Your task to perform on an android device: Open Chrome and go to settings Image 0: 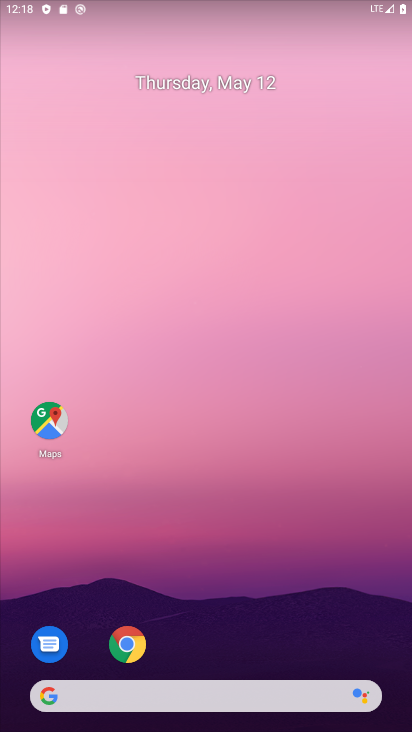
Step 0: click (135, 645)
Your task to perform on an android device: Open Chrome and go to settings Image 1: 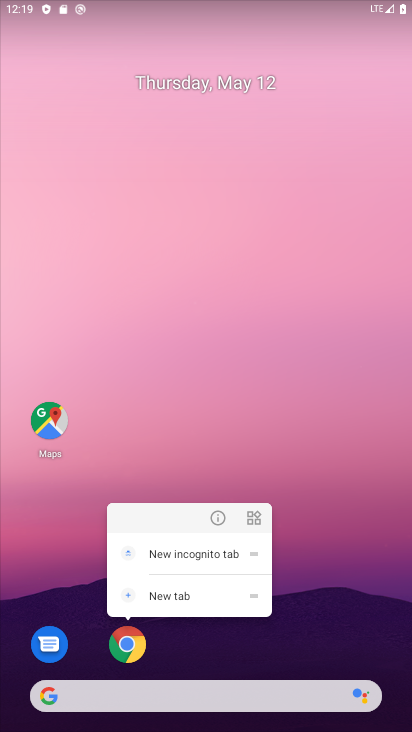
Step 1: click (136, 648)
Your task to perform on an android device: Open Chrome and go to settings Image 2: 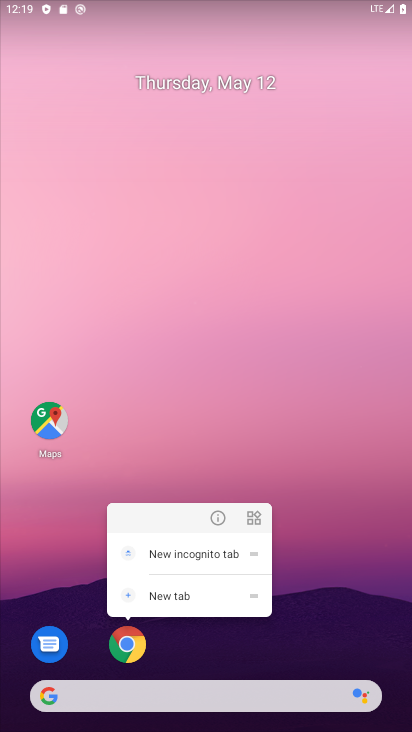
Step 2: click (137, 647)
Your task to perform on an android device: Open Chrome and go to settings Image 3: 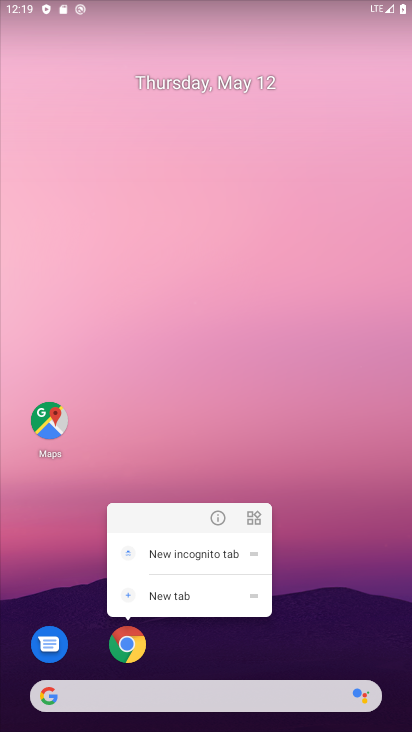
Step 3: click (136, 648)
Your task to perform on an android device: Open Chrome and go to settings Image 4: 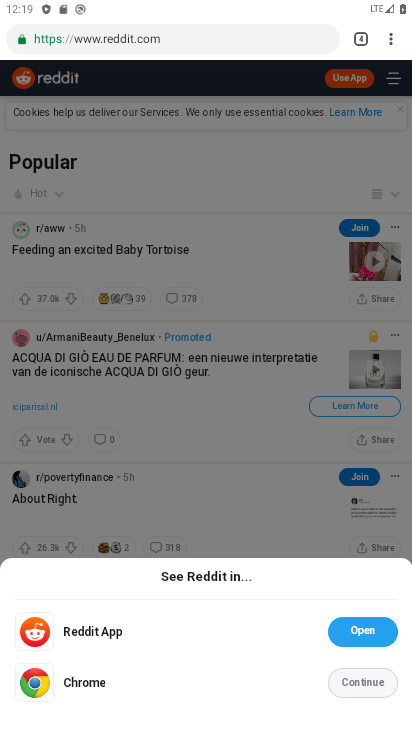
Step 4: click (393, 45)
Your task to perform on an android device: Open Chrome and go to settings Image 5: 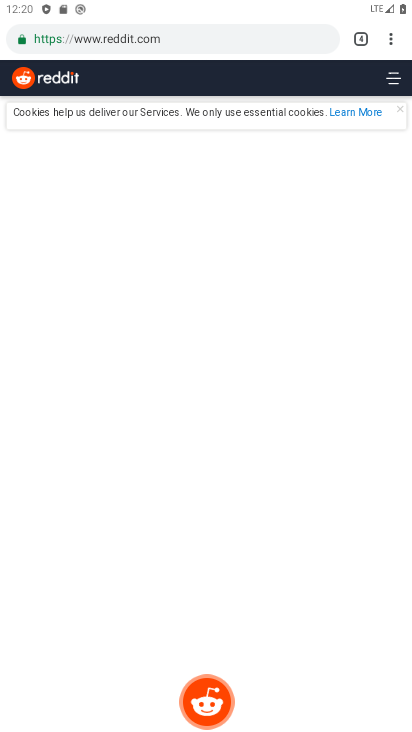
Step 5: click (386, 39)
Your task to perform on an android device: Open Chrome and go to settings Image 6: 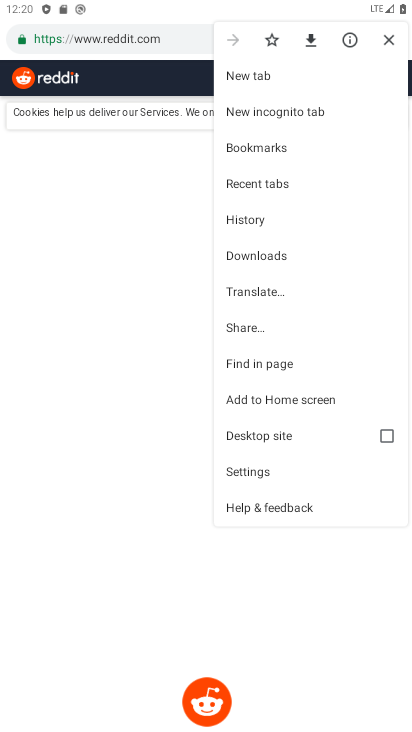
Step 6: click (266, 469)
Your task to perform on an android device: Open Chrome and go to settings Image 7: 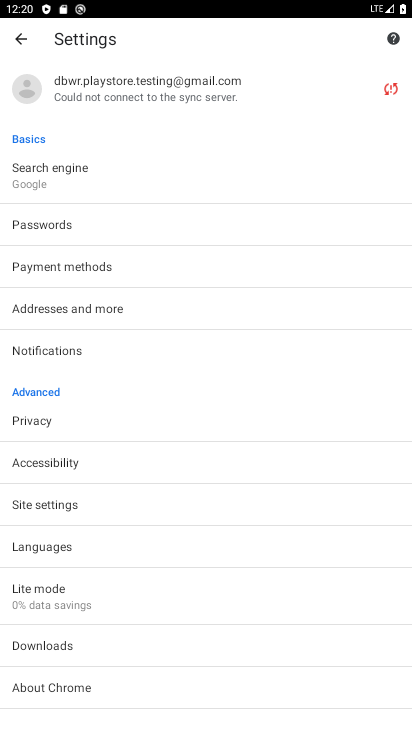
Step 7: task complete